Your task to perform on an android device: install app "Google Pay: Save, Pay, Manage" Image 0: 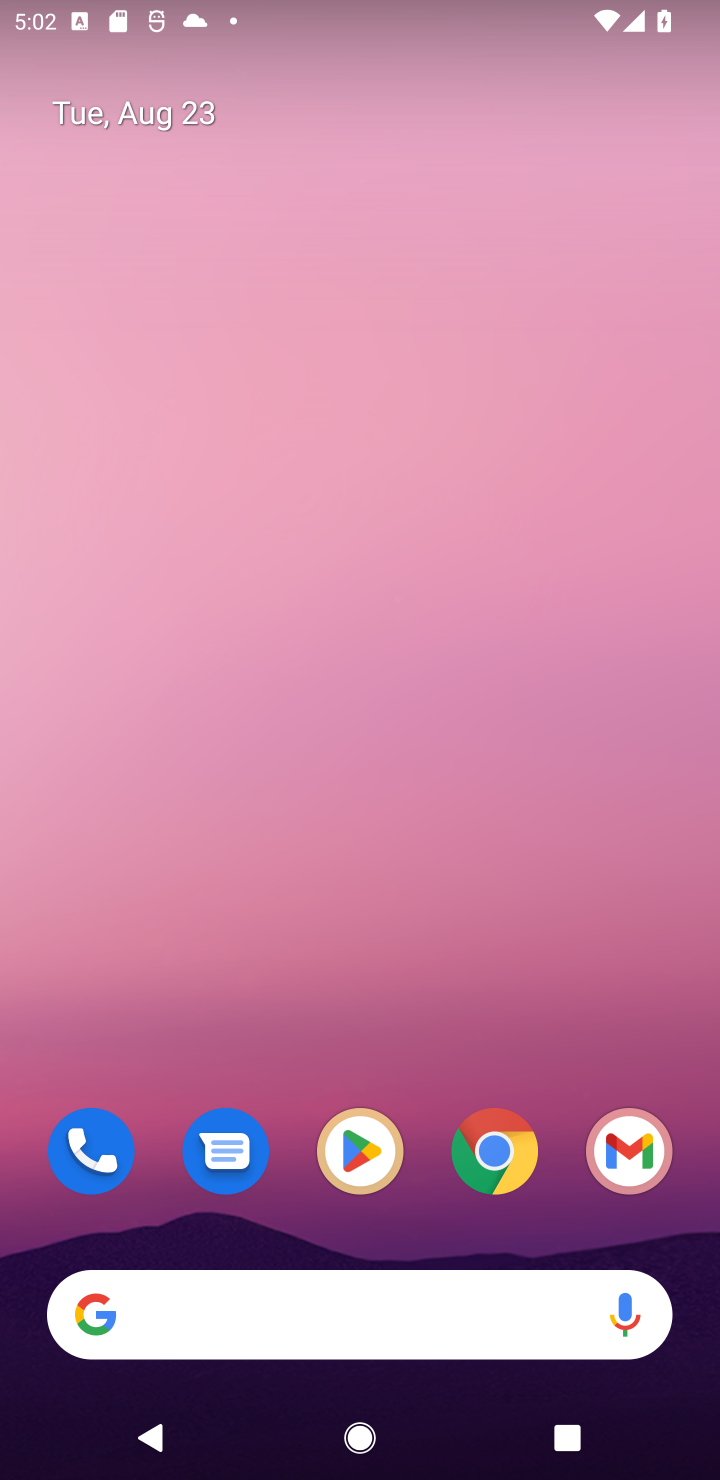
Step 0: click (339, 1150)
Your task to perform on an android device: install app "Google Pay: Save, Pay, Manage" Image 1: 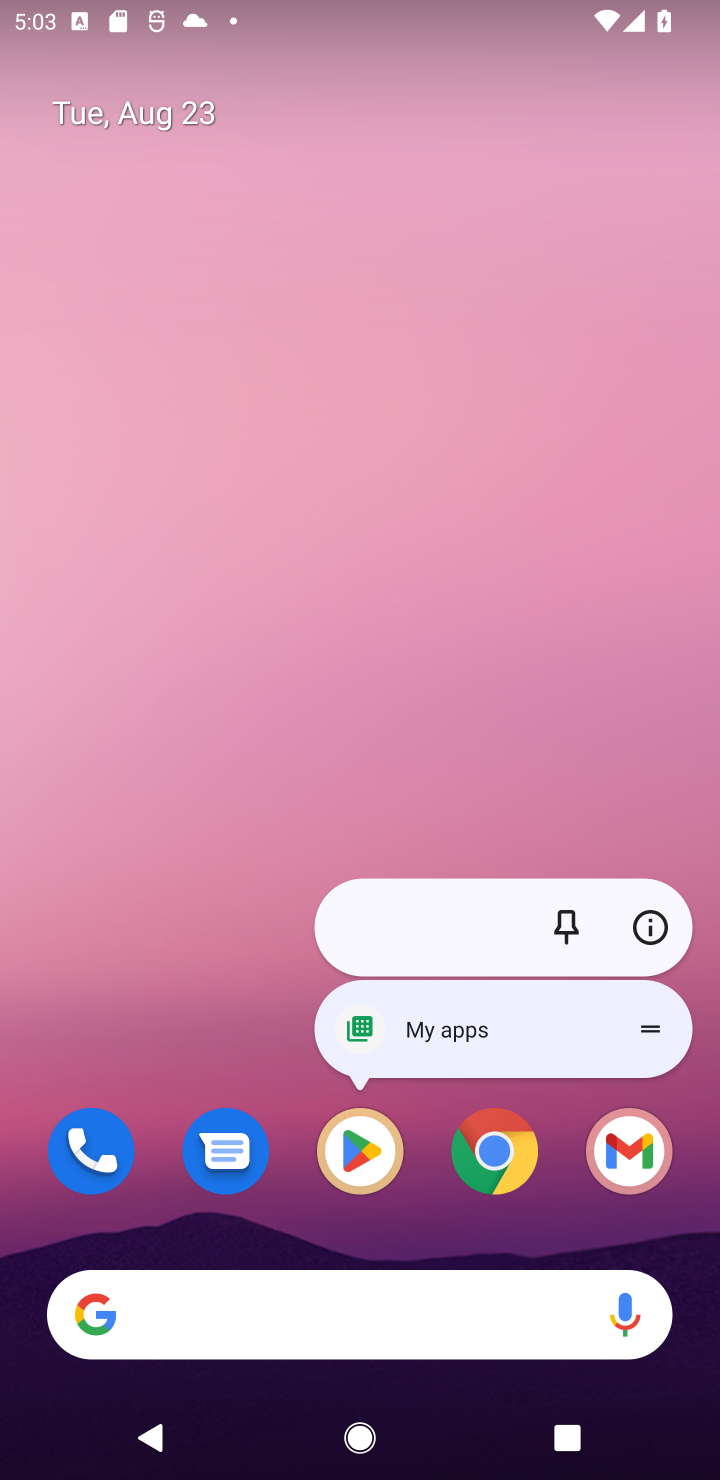
Step 1: click (355, 1151)
Your task to perform on an android device: install app "Google Pay: Save, Pay, Manage" Image 2: 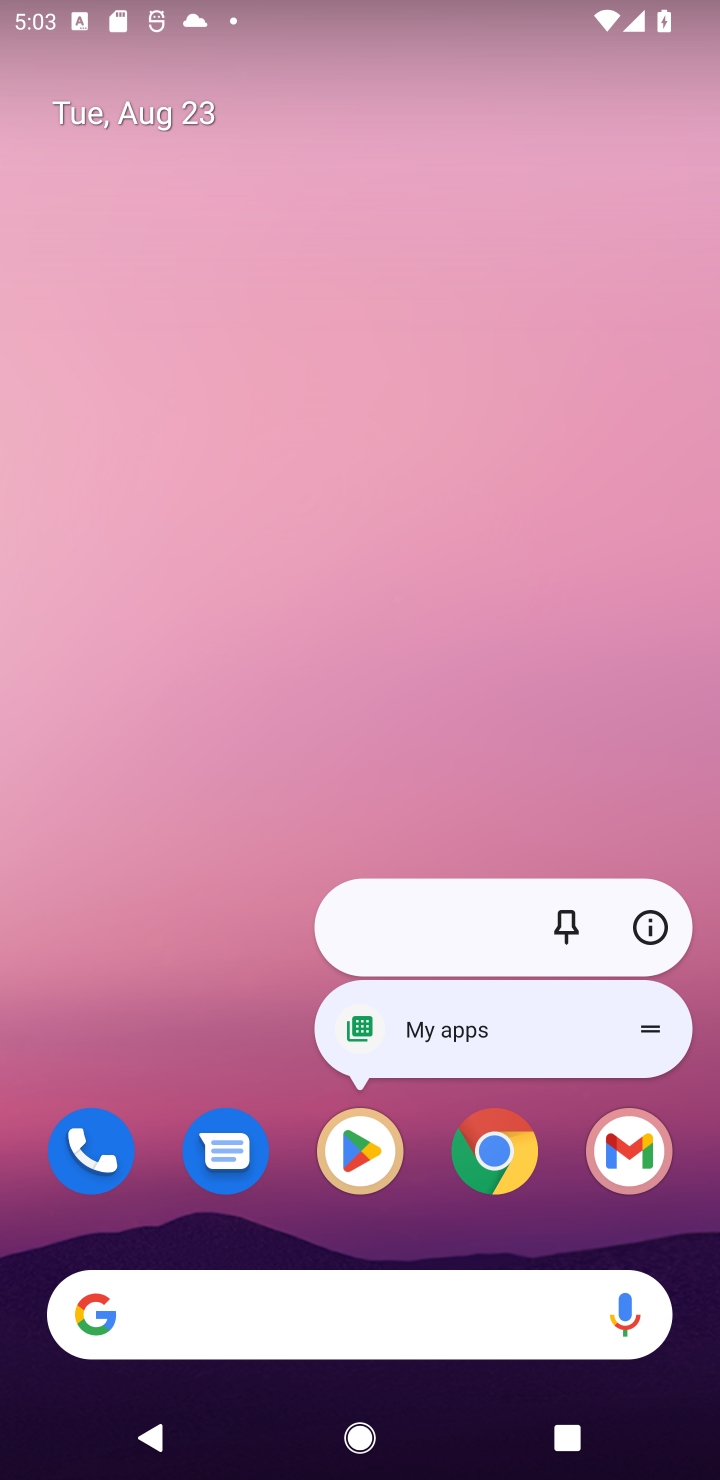
Step 2: click (355, 1158)
Your task to perform on an android device: install app "Google Pay: Save, Pay, Manage" Image 3: 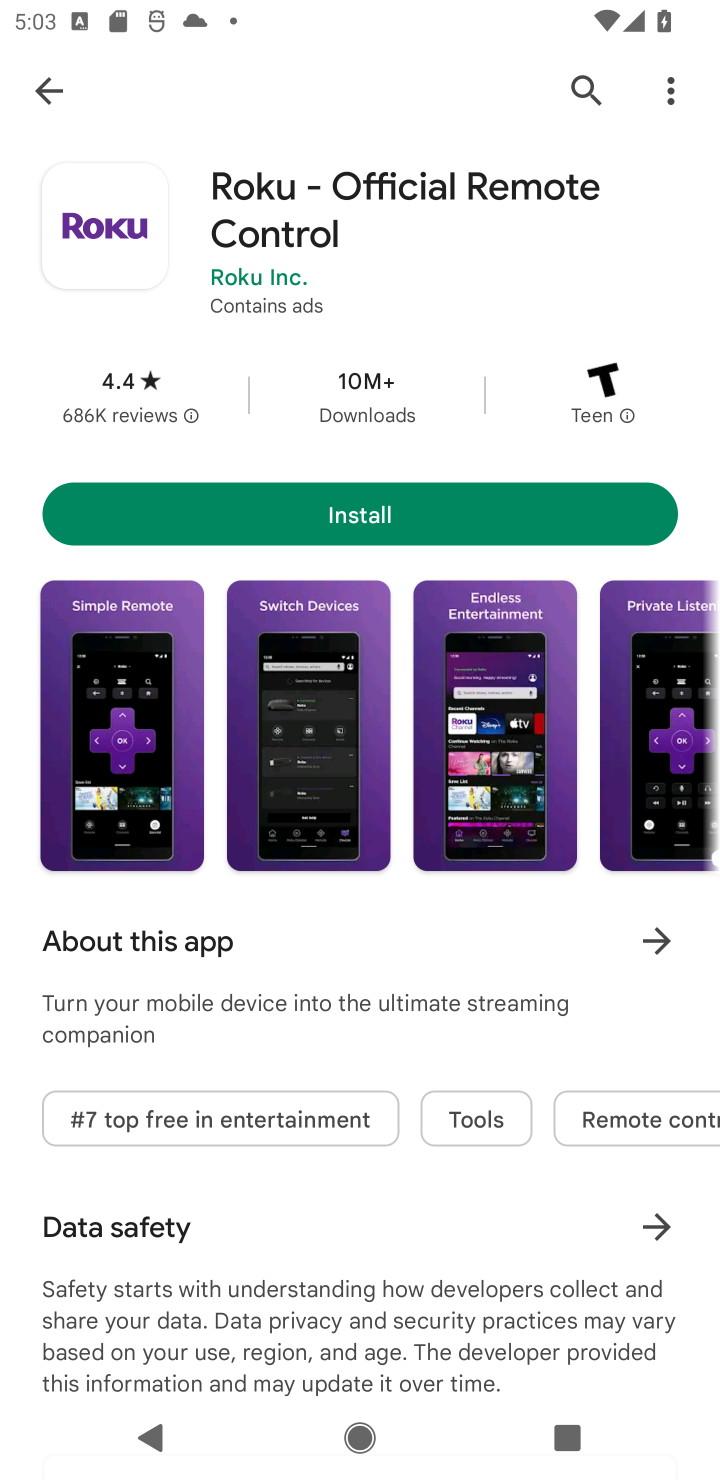
Step 3: click (574, 85)
Your task to perform on an android device: install app "Google Pay: Save, Pay, Manage" Image 4: 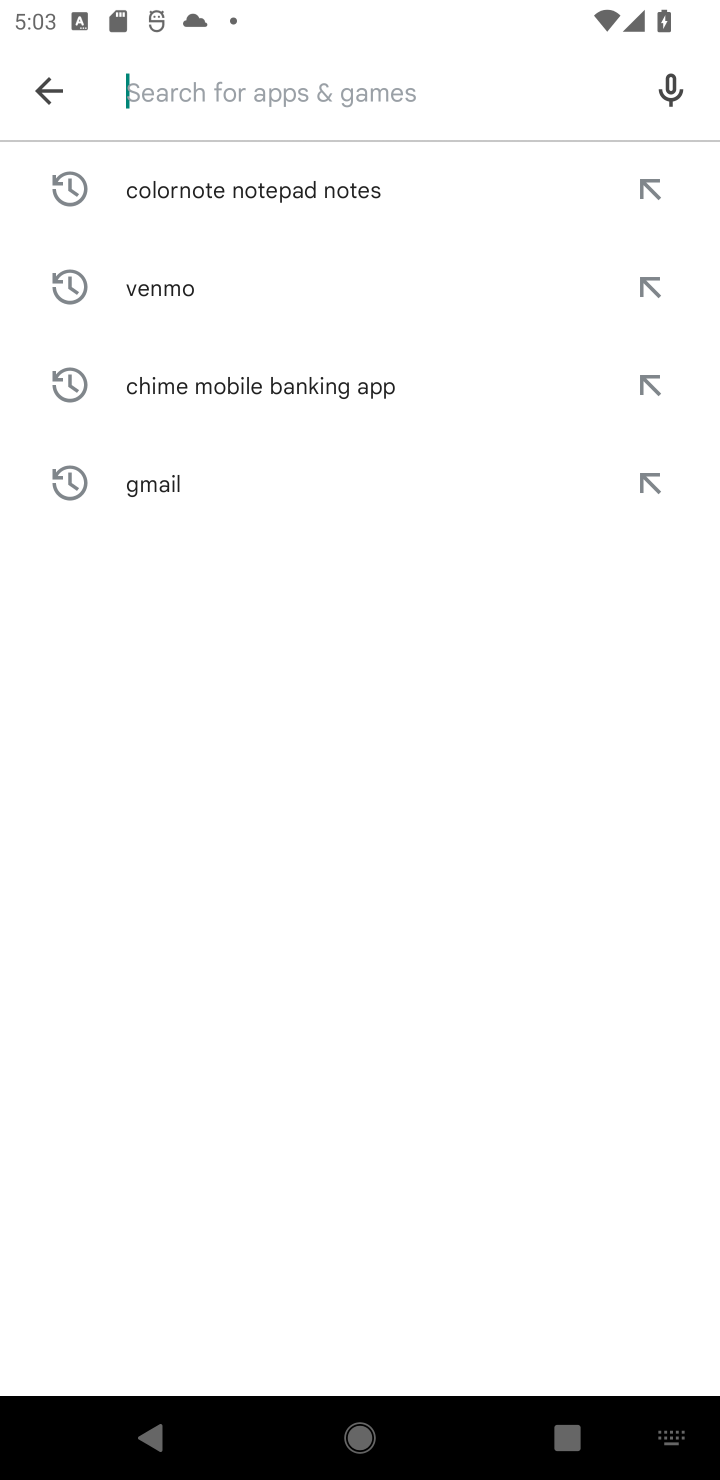
Step 4: type "Google Pay: Save, Pay, Manage"
Your task to perform on an android device: install app "Google Pay: Save, Pay, Manage" Image 5: 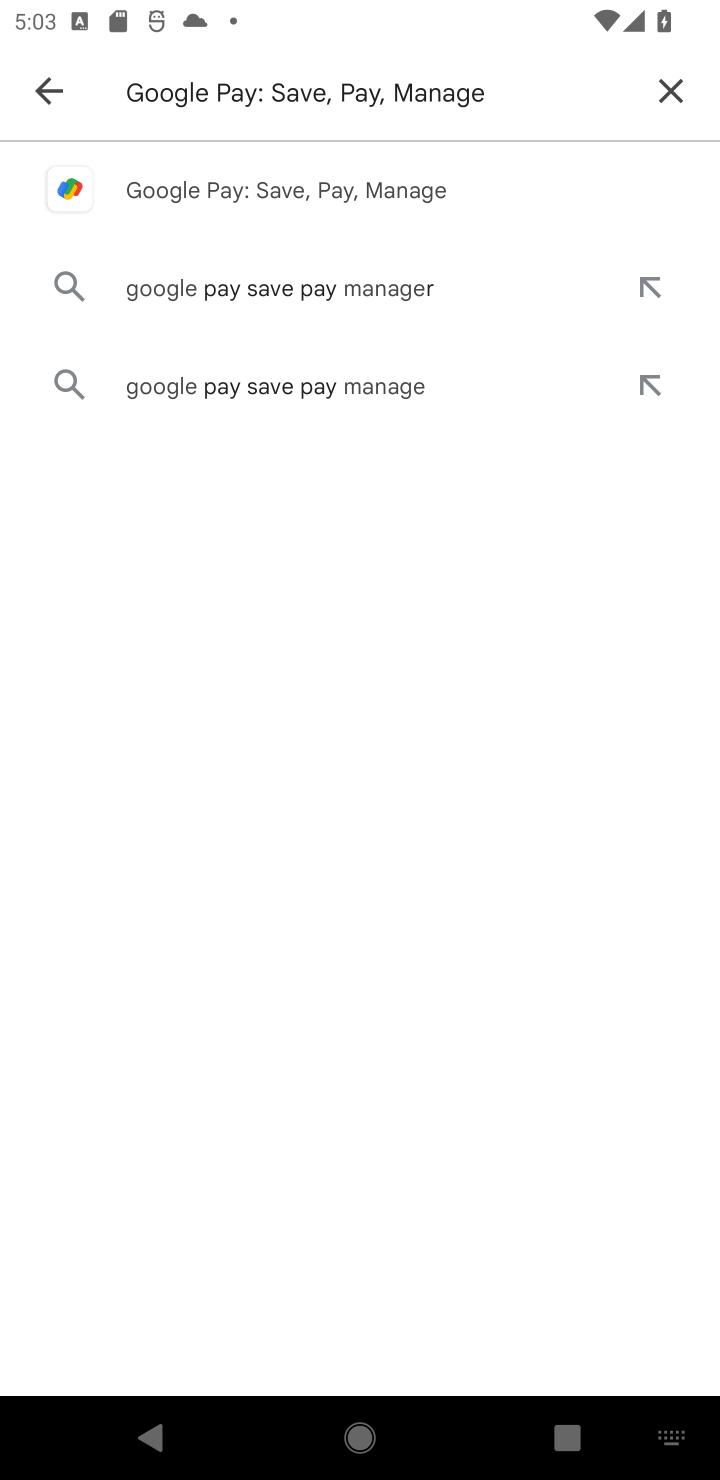
Step 5: click (198, 184)
Your task to perform on an android device: install app "Google Pay: Save, Pay, Manage" Image 6: 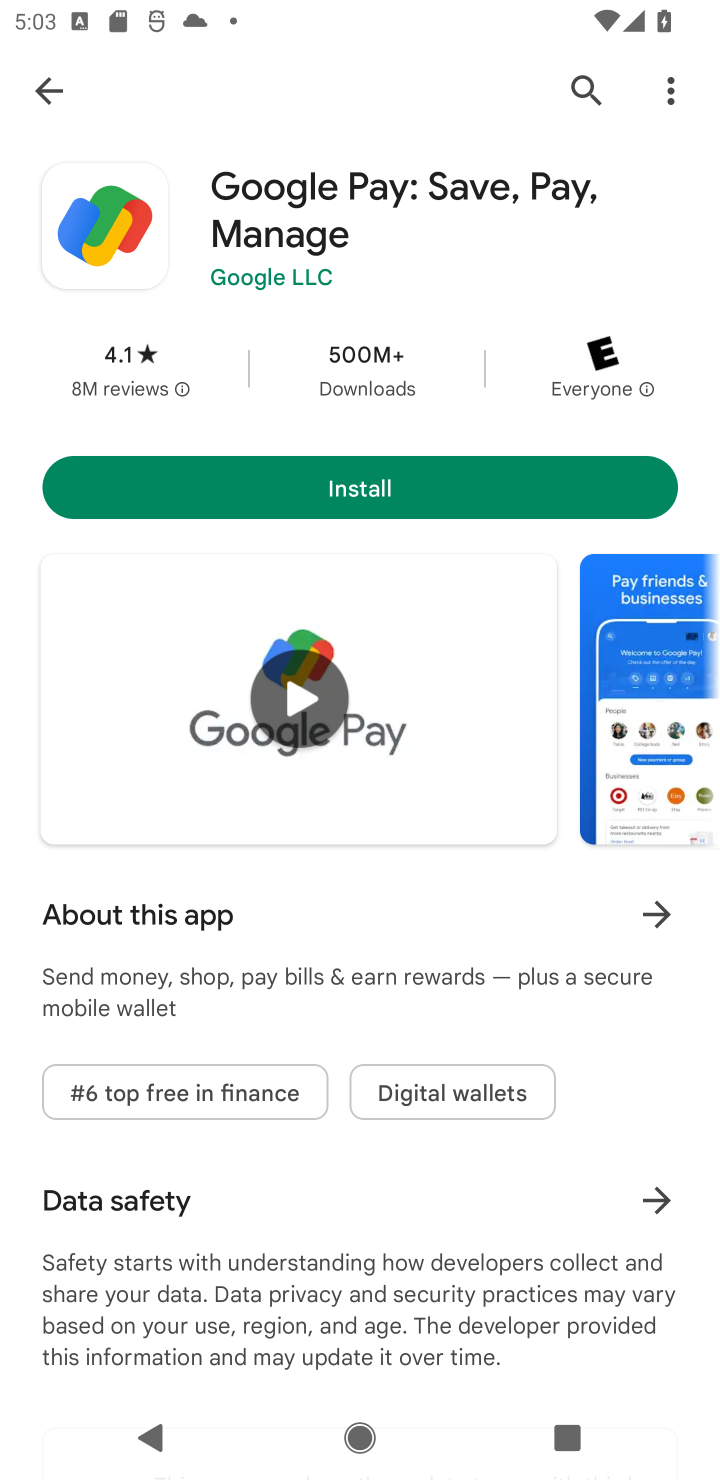
Step 6: click (391, 488)
Your task to perform on an android device: install app "Google Pay: Save, Pay, Manage" Image 7: 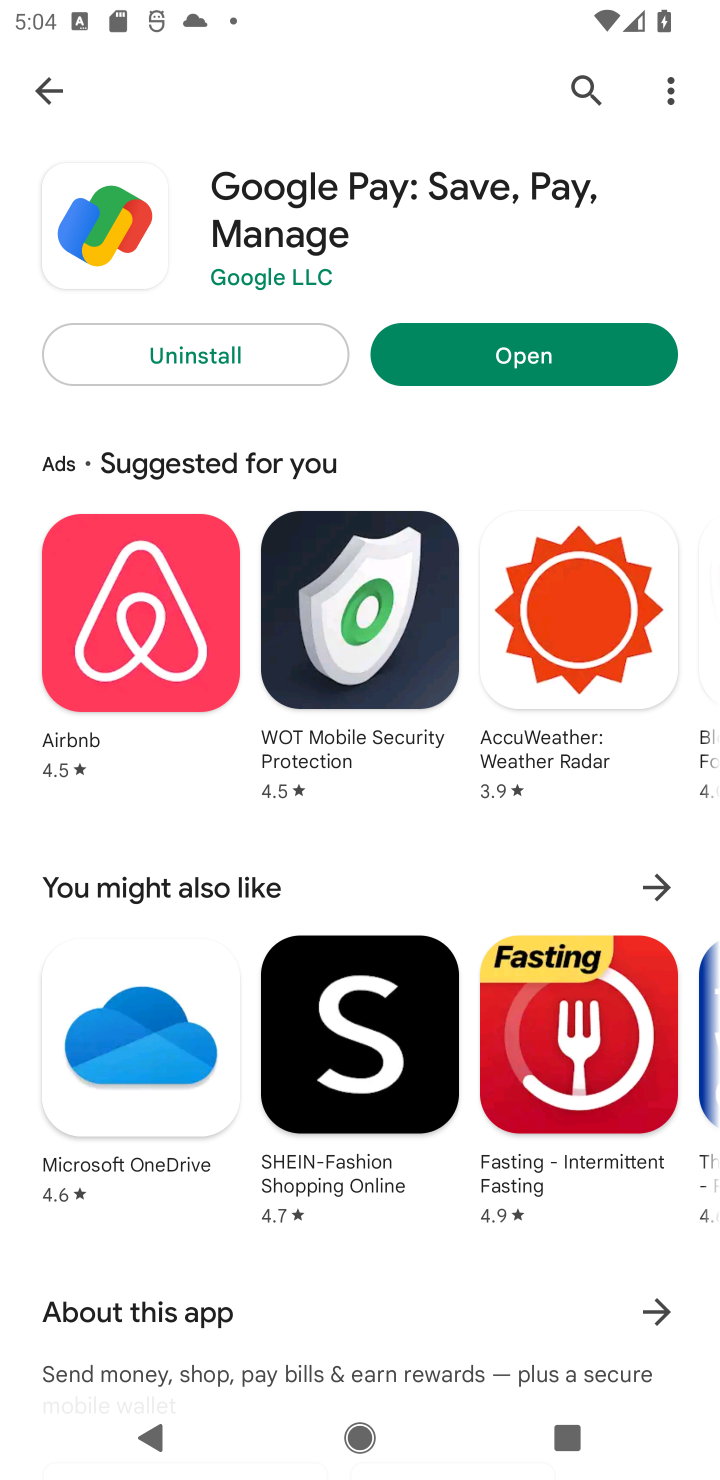
Step 7: task complete